Your task to perform on an android device: Go to eBay Image 0: 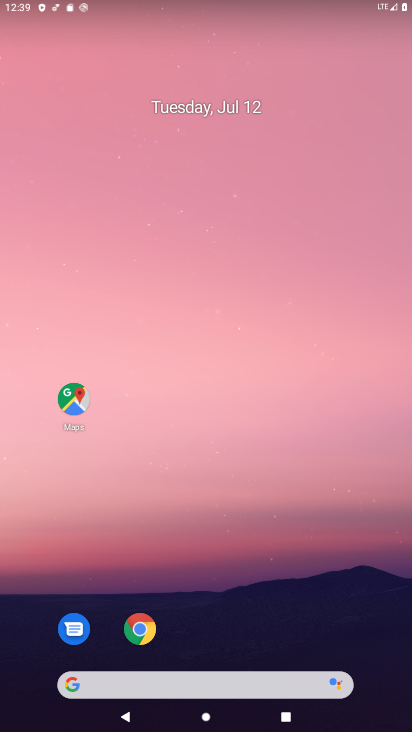
Step 0: click (129, 678)
Your task to perform on an android device: Go to eBay Image 1: 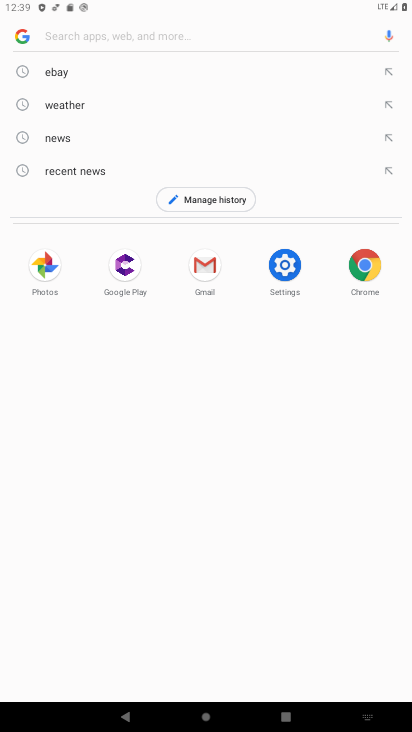
Step 1: click (66, 70)
Your task to perform on an android device: Go to eBay Image 2: 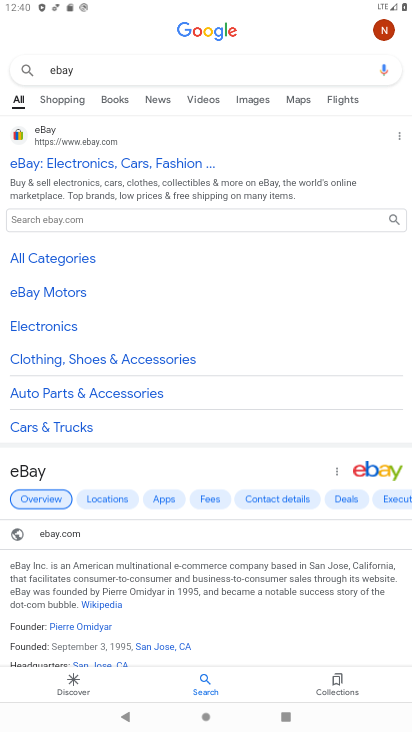
Step 2: task complete